Your task to perform on an android device: Open maps Image 0: 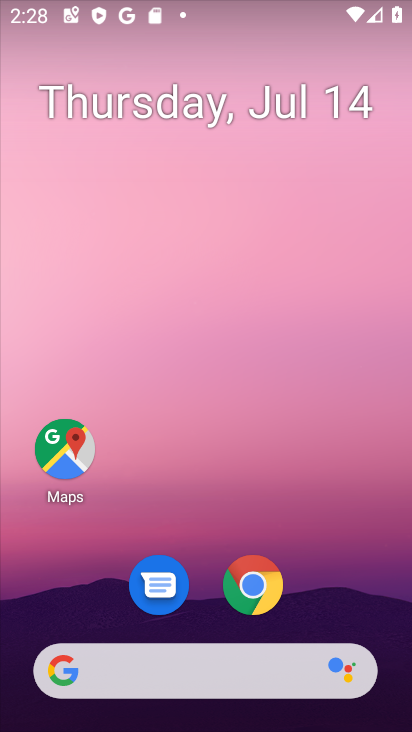
Step 0: click (57, 453)
Your task to perform on an android device: Open maps Image 1: 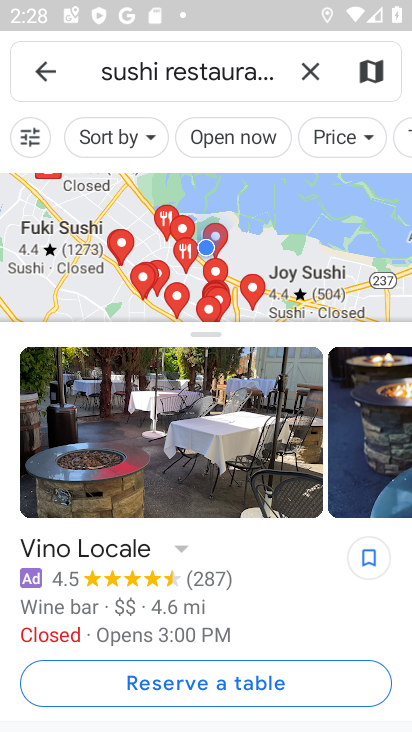
Step 1: click (304, 64)
Your task to perform on an android device: Open maps Image 2: 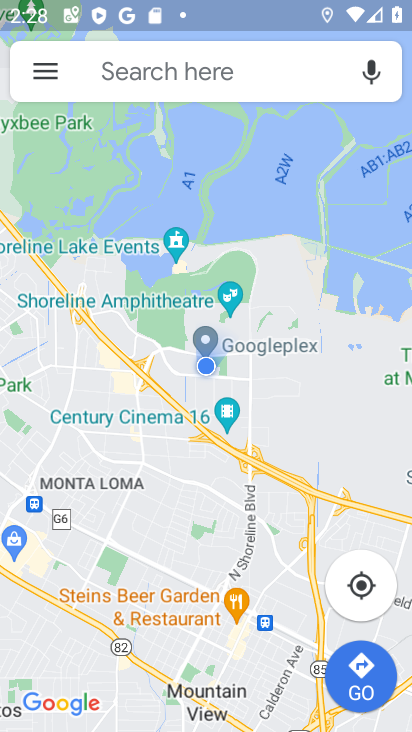
Step 2: task complete